Your task to perform on an android device: Open Chrome and go to the settings page Image 0: 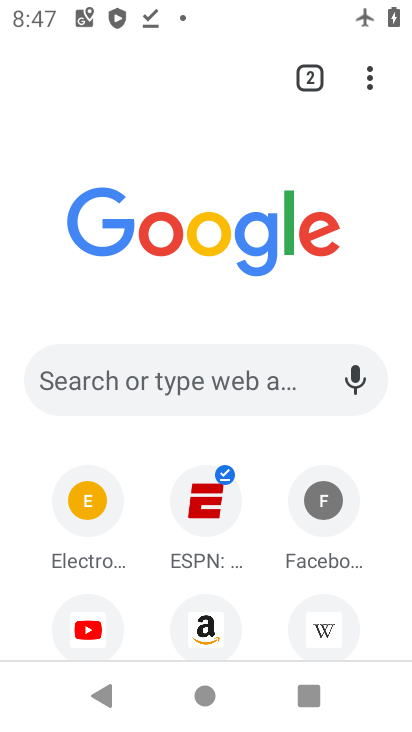
Step 0: press back button
Your task to perform on an android device: Open Chrome and go to the settings page Image 1: 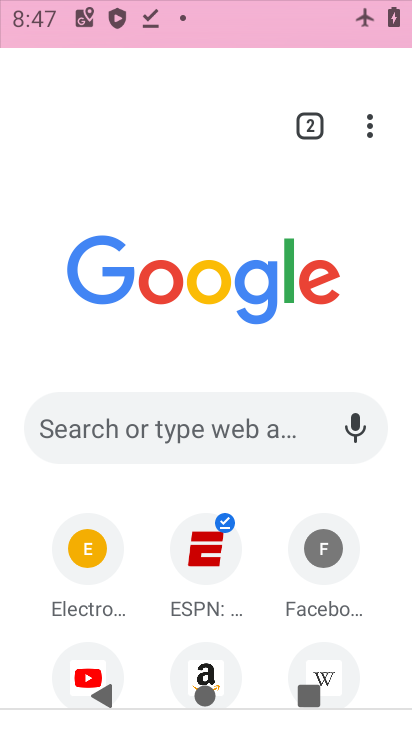
Step 1: drag from (366, 79) to (344, 467)
Your task to perform on an android device: Open Chrome and go to the settings page Image 2: 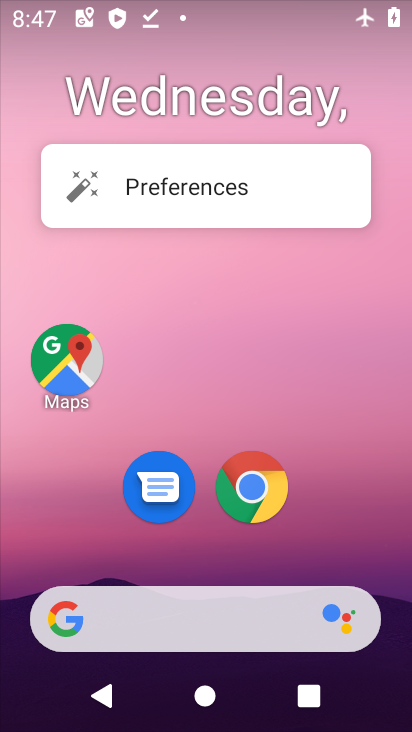
Step 2: press back button
Your task to perform on an android device: Open Chrome and go to the settings page Image 3: 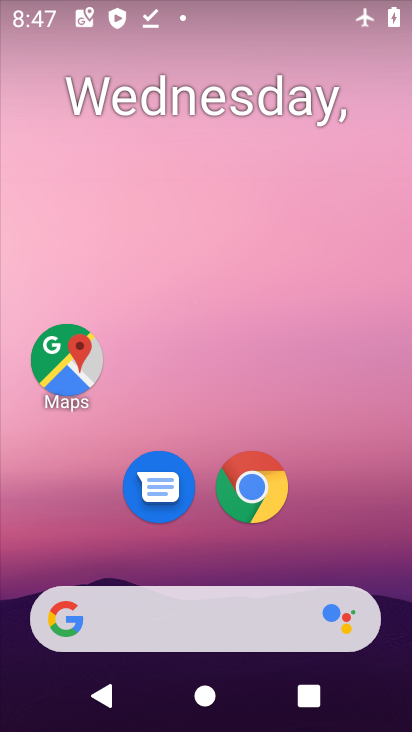
Step 3: drag from (357, 512) to (231, 15)
Your task to perform on an android device: Open Chrome and go to the settings page Image 4: 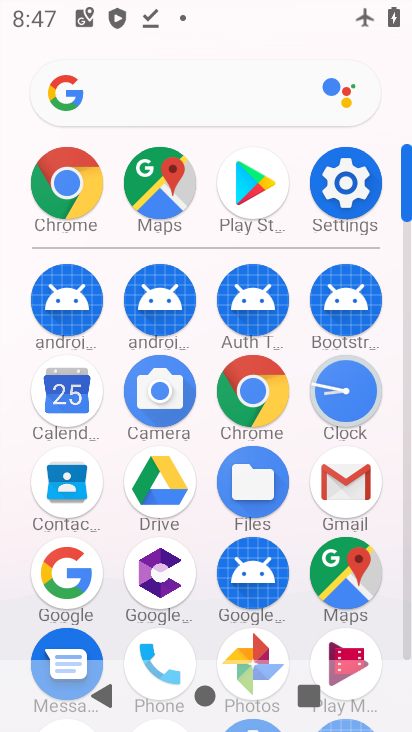
Step 4: click (271, 382)
Your task to perform on an android device: Open Chrome and go to the settings page Image 5: 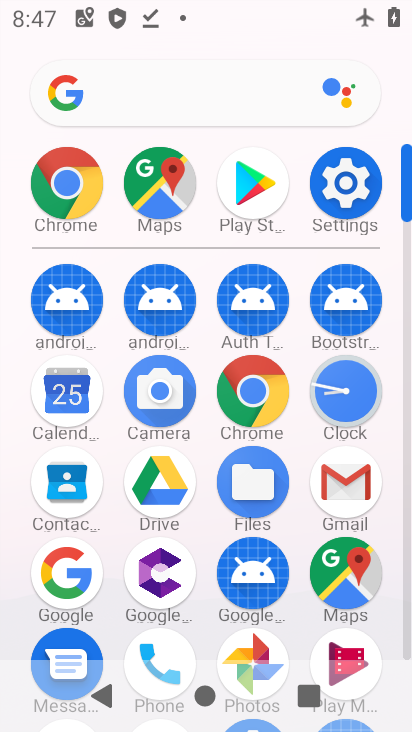
Step 5: click (273, 393)
Your task to perform on an android device: Open Chrome and go to the settings page Image 6: 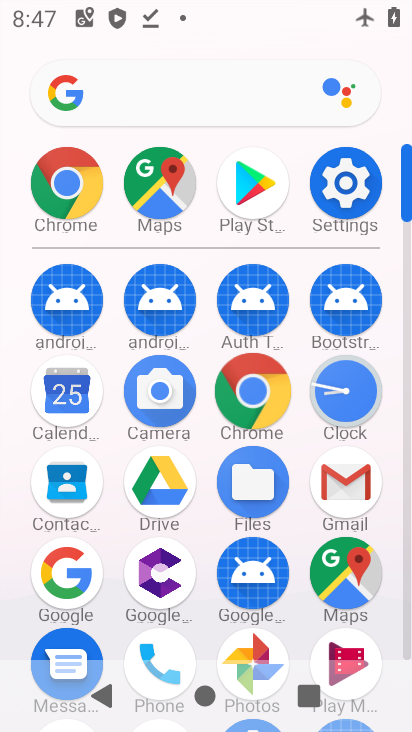
Step 6: click (273, 394)
Your task to perform on an android device: Open Chrome and go to the settings page Image 7: 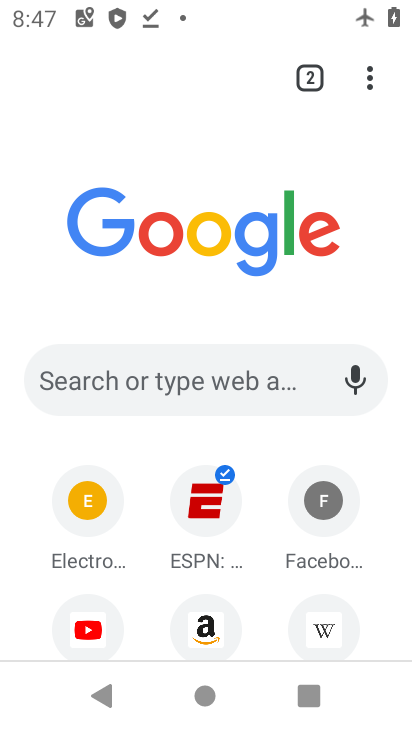
Step 7: drag from (366, 78) to (78, 548)
Your task to perform on an android device: Open Chrome and go to the settings page Image 8: 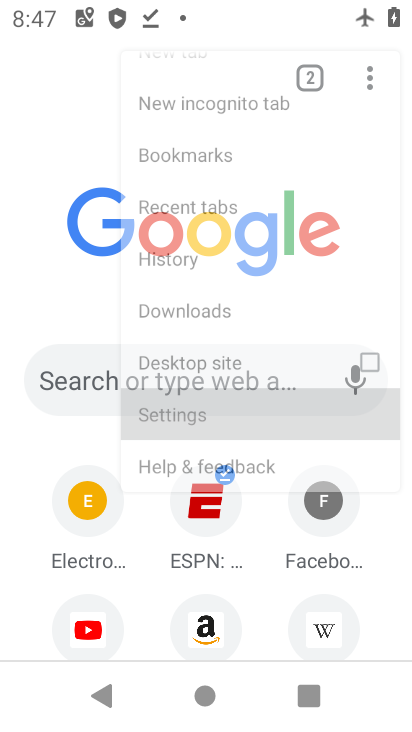
Step 8: click (78, 548)
Your task to perform on an android device: Open Chrome and go to the settings page Image 9: 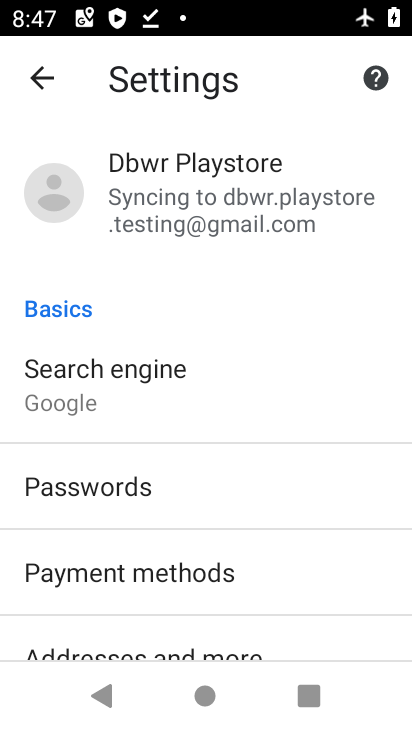
Step 9: task complete